Your task to perform on an android device: empty trash in the gmail app Image 0: 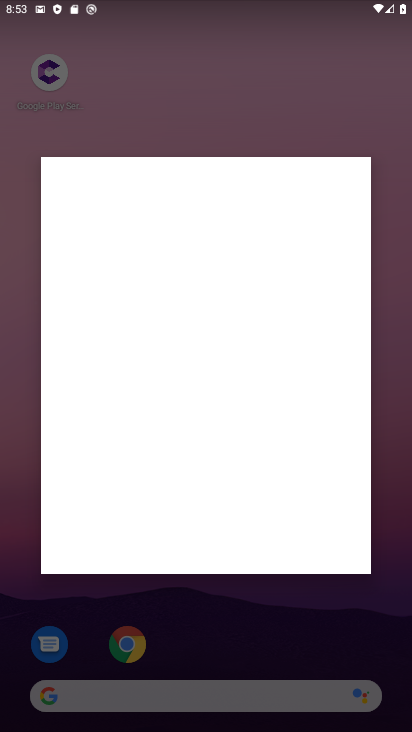
Step 0: drag from (171, 557) to (202, 423)
Your task to perform on an android device: empty trash in the gmail app Image 1: 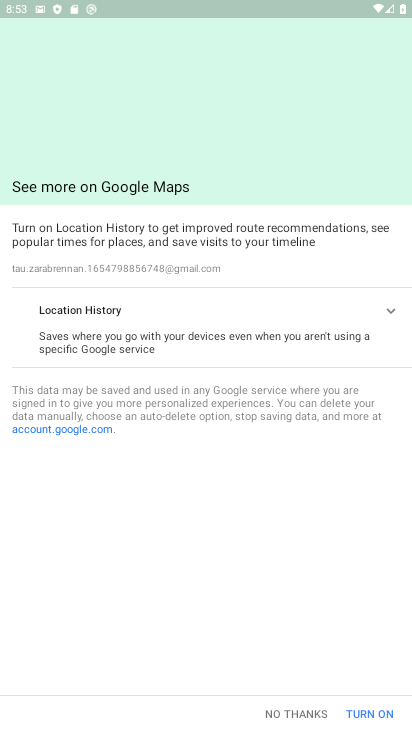
Step 1: press home button
Your task to perform on an android device: empty trash in the gmail app Image 2: 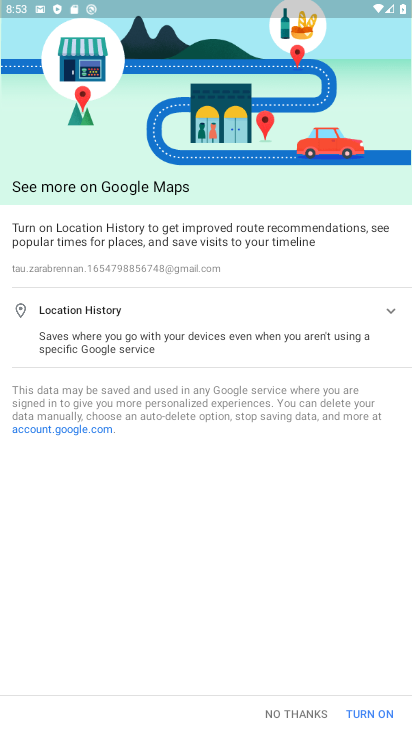
Step 2: drag from (202, 423) to (247, 621)
Your task to perform on an android device: empty trash in the gmail app Image 3: 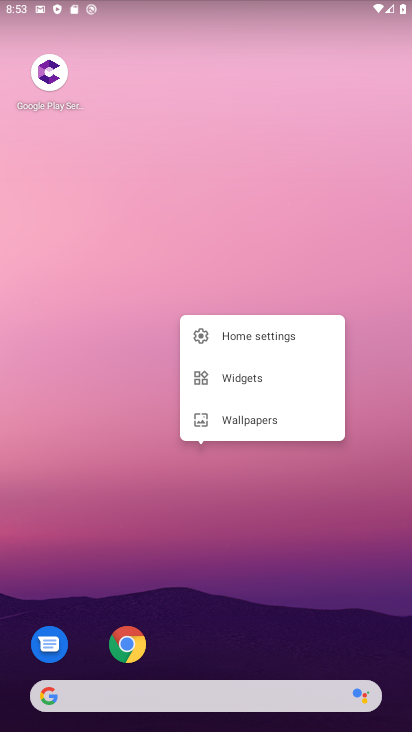
Step 3: click (168, 660)
Your task to perform on an android device: empty trash in the gmail app Image 4: 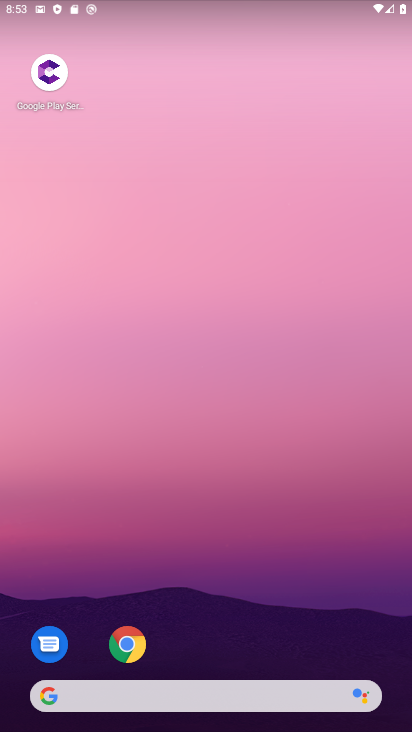
Step 4: click (277, 0)
Your task to perform on an android device: empty trash in the gmail app Image 5: 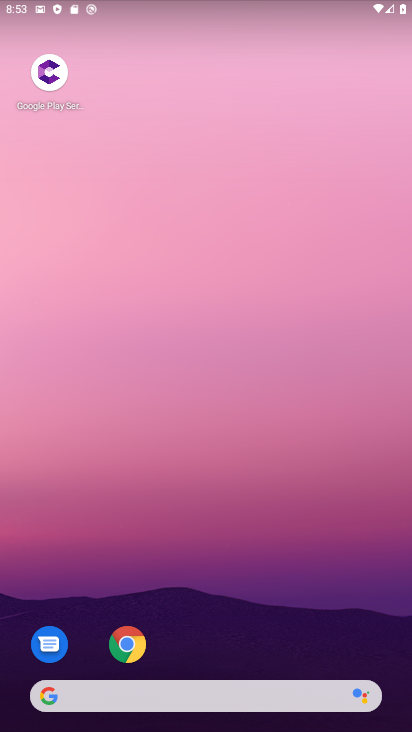
Step 5: drag from (188, 665) to (315, 74)
Your task to perform on an android device: empty trash in the gmail app Image 6: 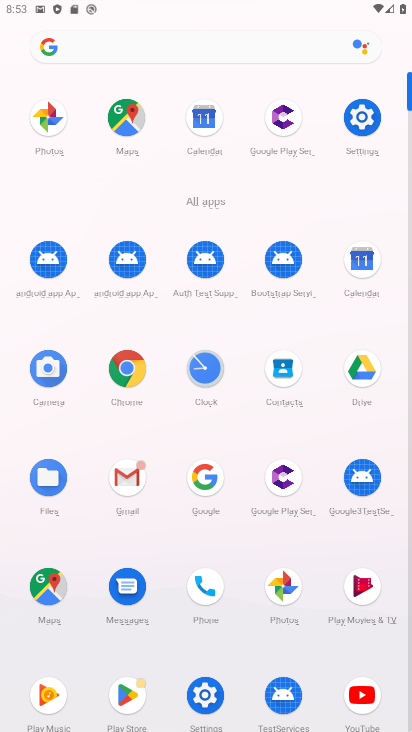
Step 6: click (126, 126)
Your task to perform on an android device: empty trash in the gmail app Image 7: 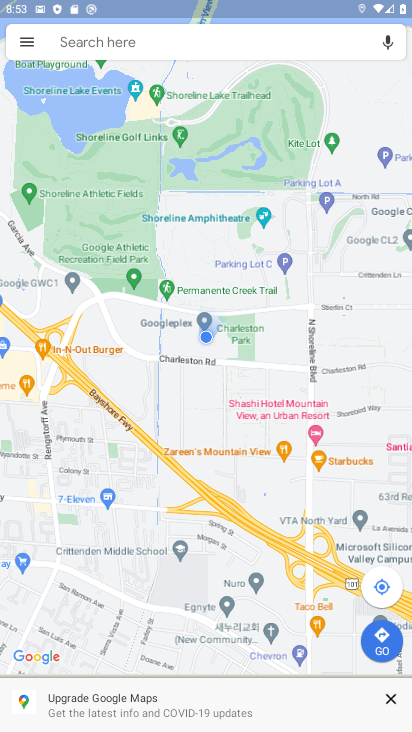
Step 7: task complete